Your task to perform on an android device: change keyboard looks Image 0: 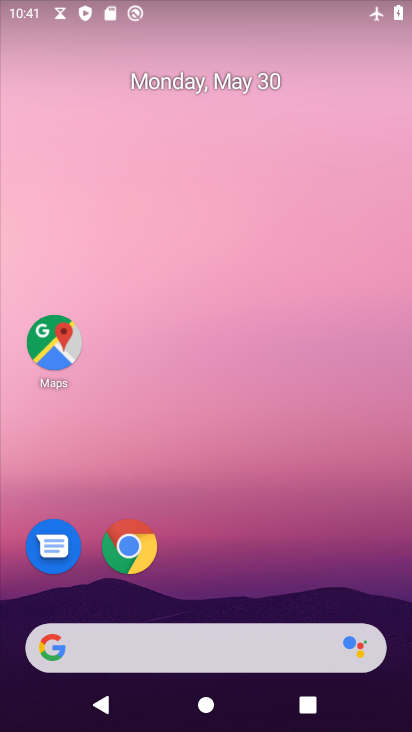
Step 0: press home button
Your task to perform on an android device: change keyboard looks Image 1: 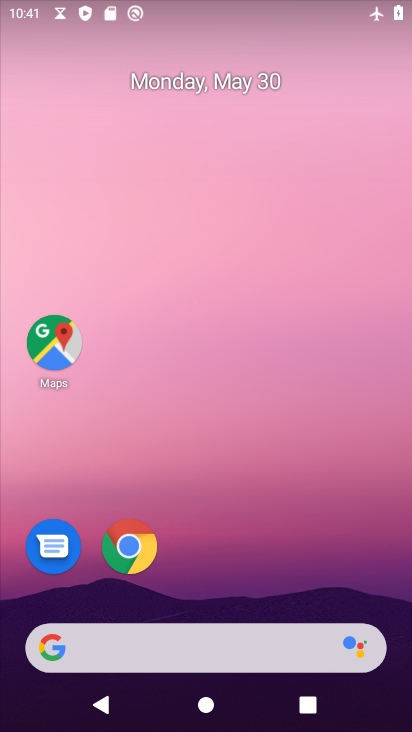
Step 1: drag from (207, 589) to (247, 21)
Your task to perform on an android device: change keyboard looks Image 2: 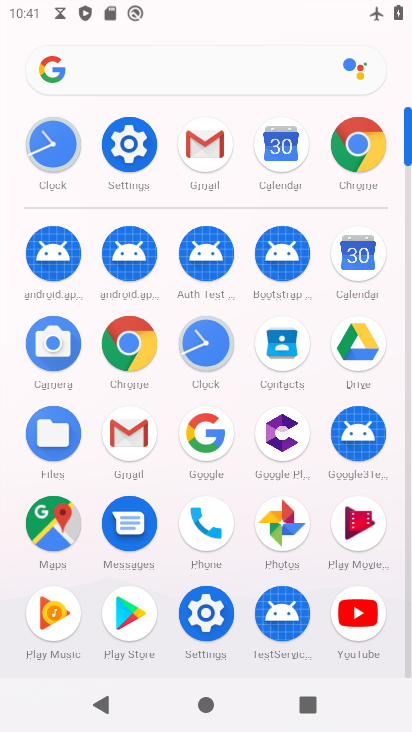
Step 2: click (125, 137)
Your task to perform on an android device: change keyboard looks Image 3: 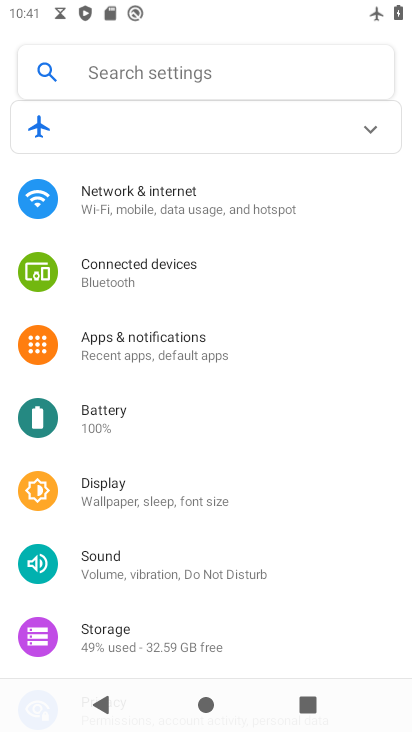
Step 3: drag from (186, 628) to (213, 7)
Your task to perform on an android device: change keyboard looks Image 4: 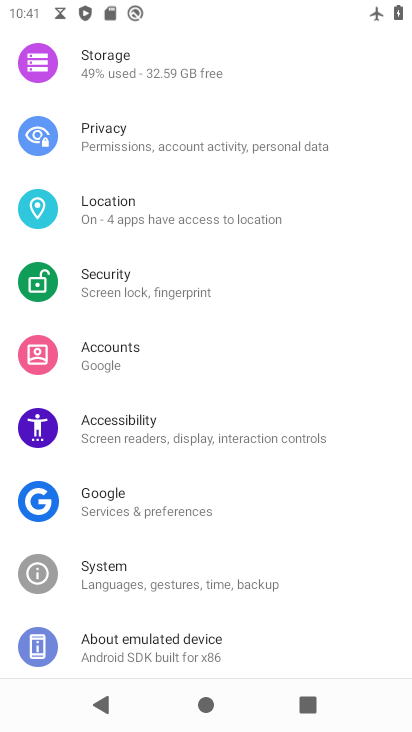
Step 4: click (140, 564)
Your task to perform on an android device: change keyboard looks Image 5: 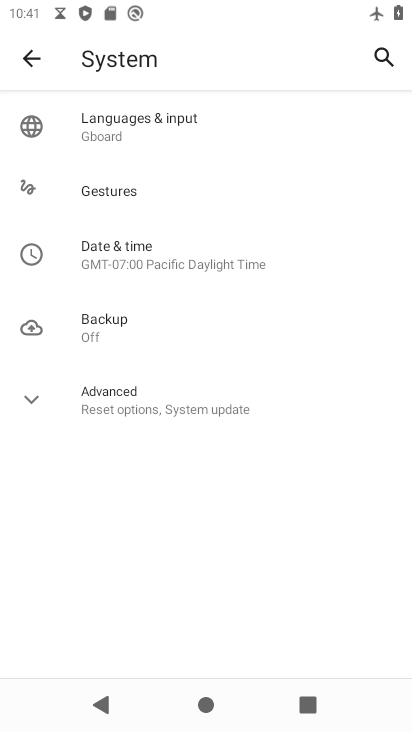
Step 5: click (64, 127)
Your task to perform on an android device: change keyboard looks Image 6: 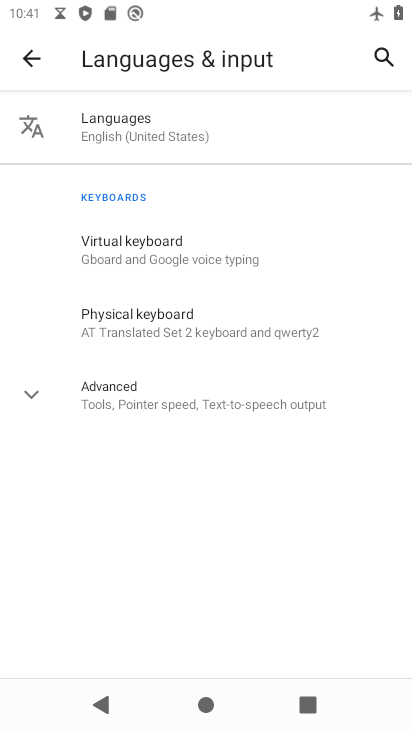
Step 6: click (54, 247)
Your task to perform on an android device: change keyboard looks Image 7: 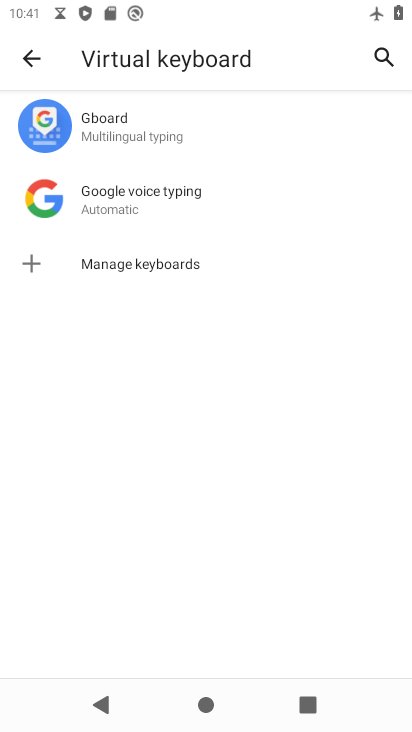
Step 7: click (132, 107)
Your task to perform on an android device: change keyboard looks Image 8: 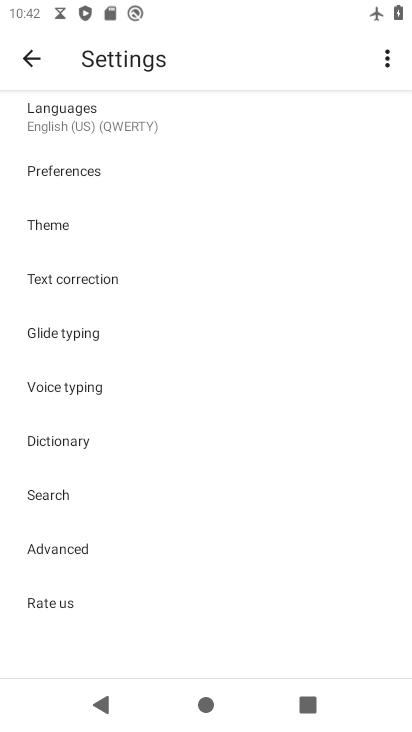
Step 8: click (94, 226)
Your task to perform on an android device: change keyboard looks Image 9: 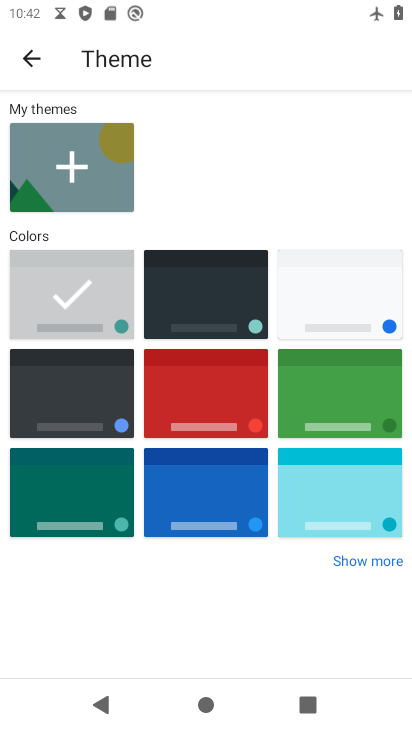
Step 9: click (340, 381)
Your task to perform on an android device: change keyboard looks Image 10: 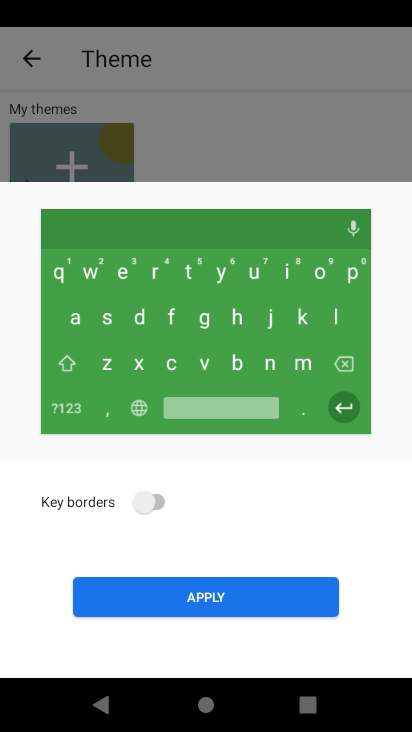
Step 10: click (197, 592)
Your task to perform on an android device: change keyboard looks Image 11: 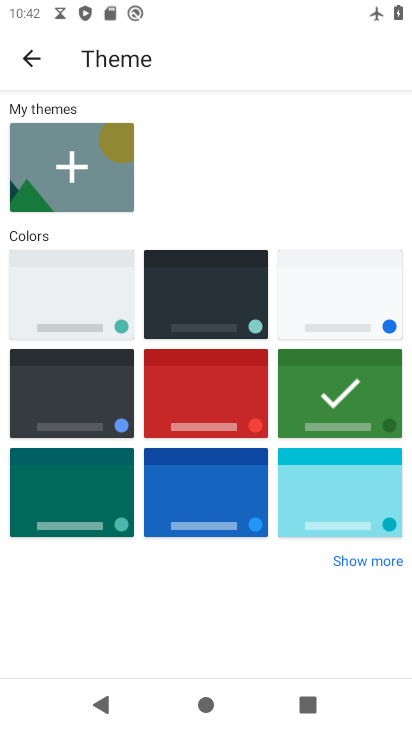
Step 11: task complete